Your task to perform on an android device: star an email in the gmail app Image 0: 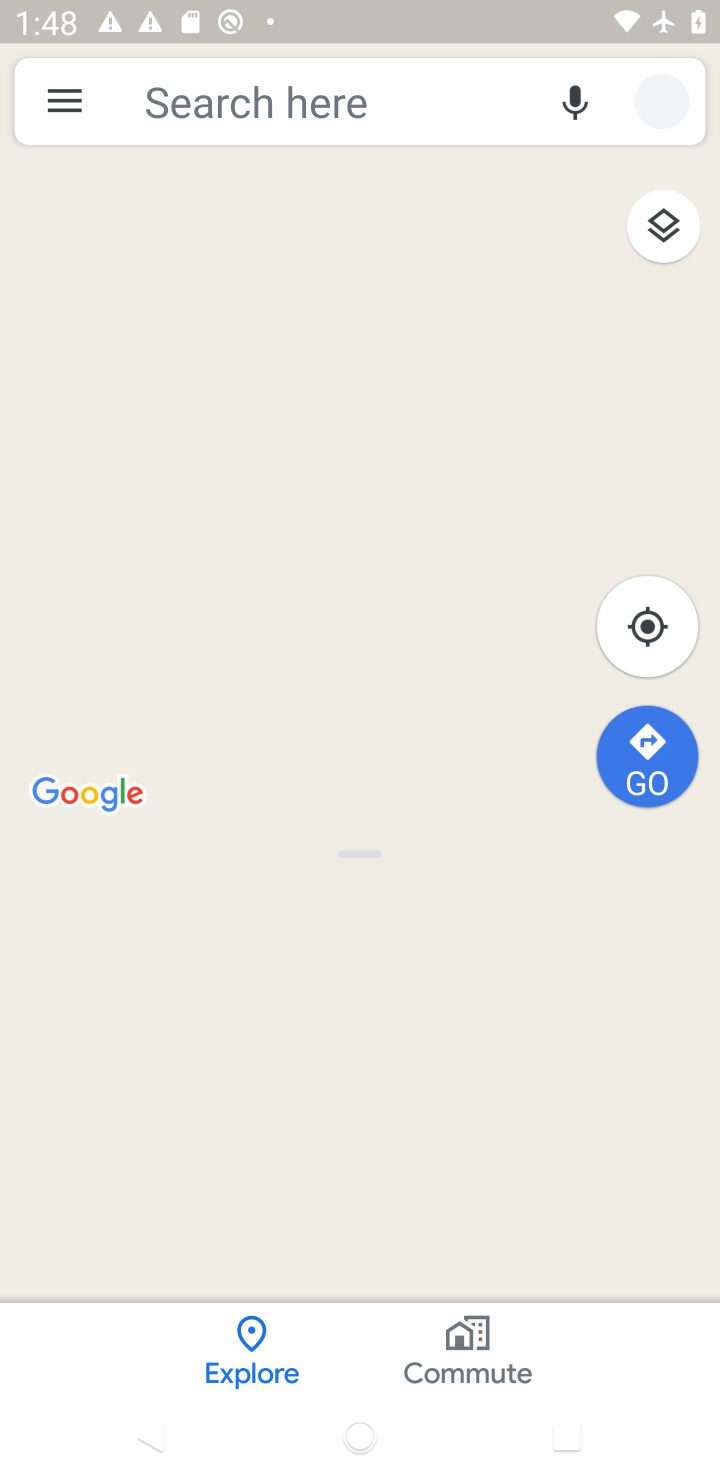
Step 0: click (142, 113)
Your task to perform on an android device: star an email in the gmail app Image 1: 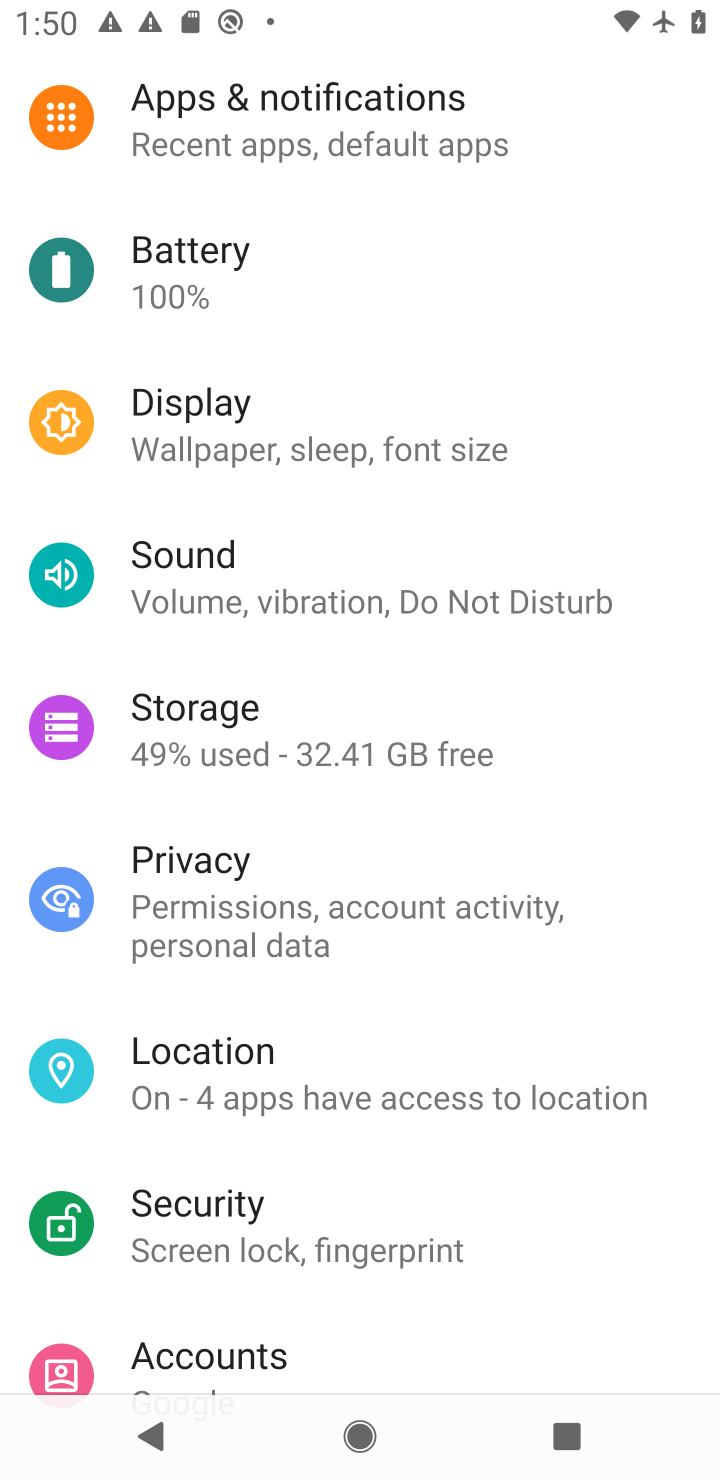
Step 1: task complete